Your task to perform on an android device: turn off wifi Image 0: 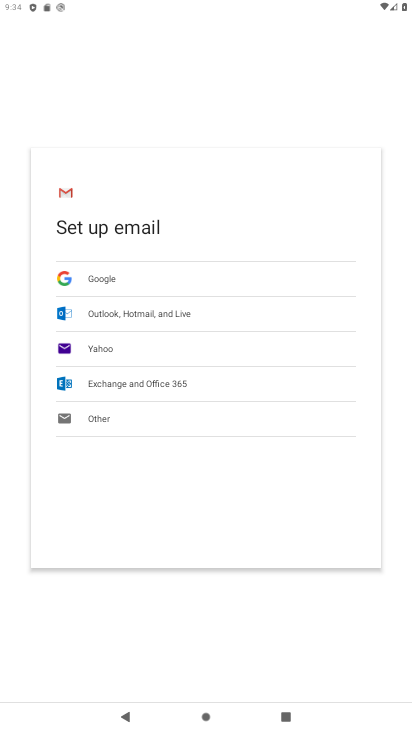
Step 0: press home button
Your task to perform on an android device: turn off wifi Image 1: 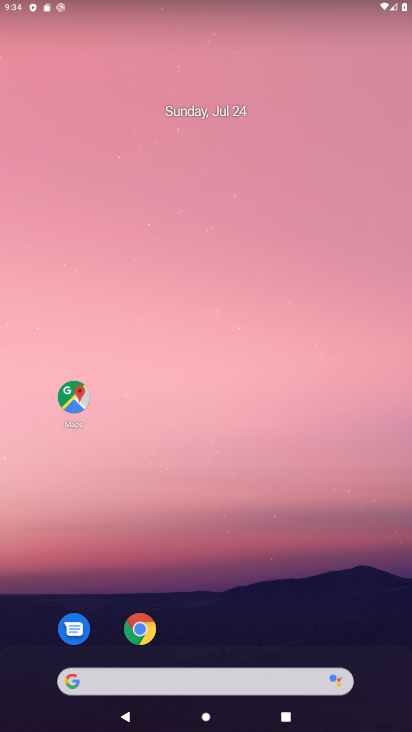
Step 1: drag from (265, 511) to (294, 25)
Your task to perform on an android device: turn off wifi Image 2: 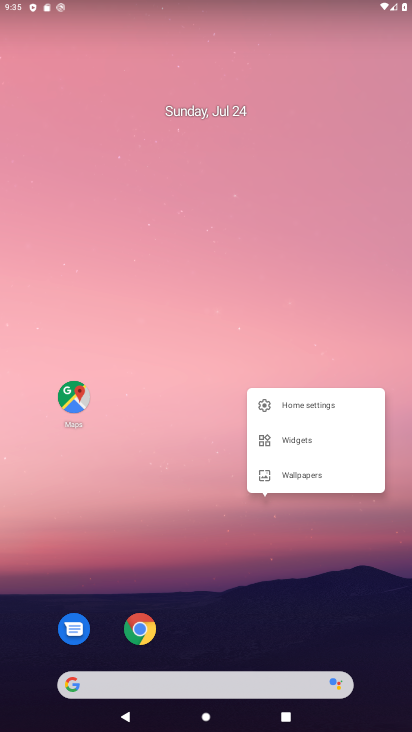
Step 2: drag from (252, 584) to (263, 35)
Your task to perform on an android device: turn off wifi Image 3: 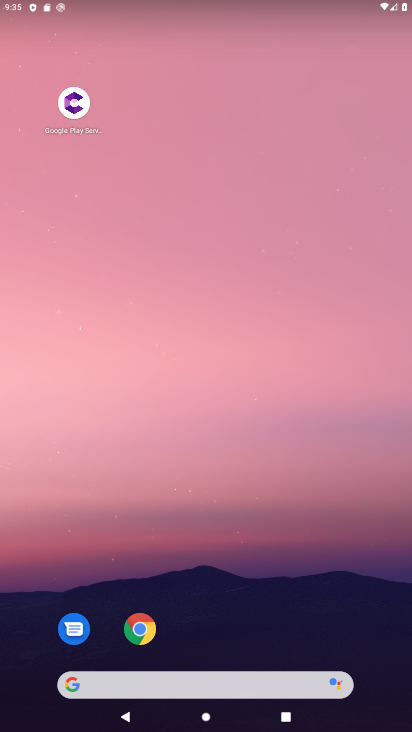
Step 3: click (167, 606)
Your task to perform on an android device: turn off wifi Image 4: 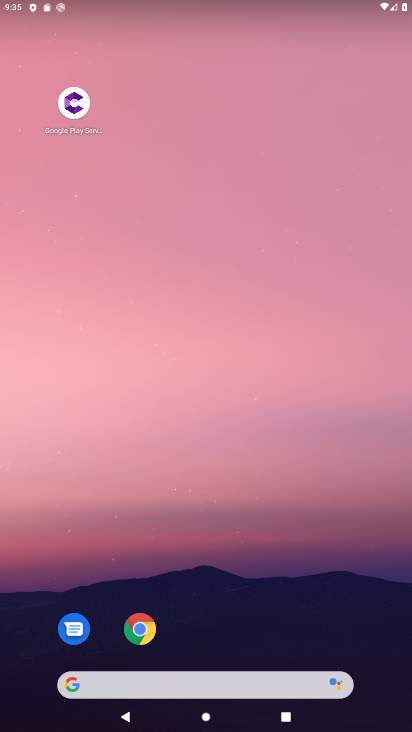
Step 4: press home button
Your task to perform on an android device: turn off wifi Image 5: 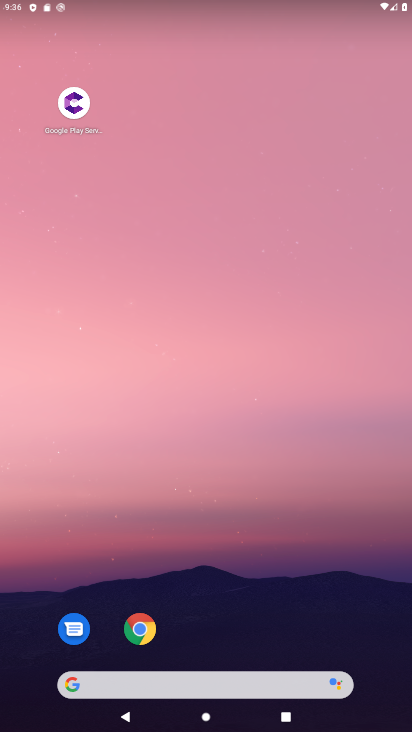
Step 5: drag from (315, 577) to (317, 142)
Your task to perform on an android device: turn off wifi Image 6: 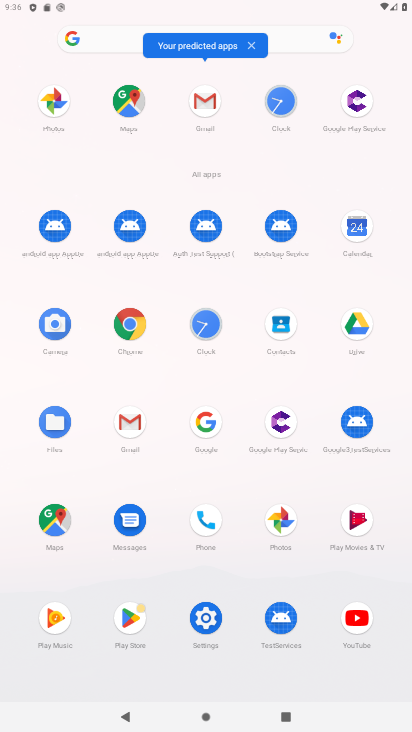
Step 6: press home button
Your task to perform on an android device: turn off wifi Image 7: 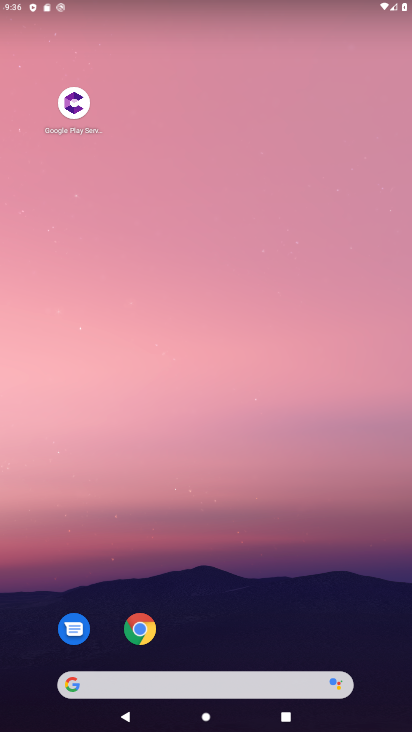
Step 7: drag from (270, 622) to (327, 66)
Your task to perform on an android device: turn off wifi Image 8: 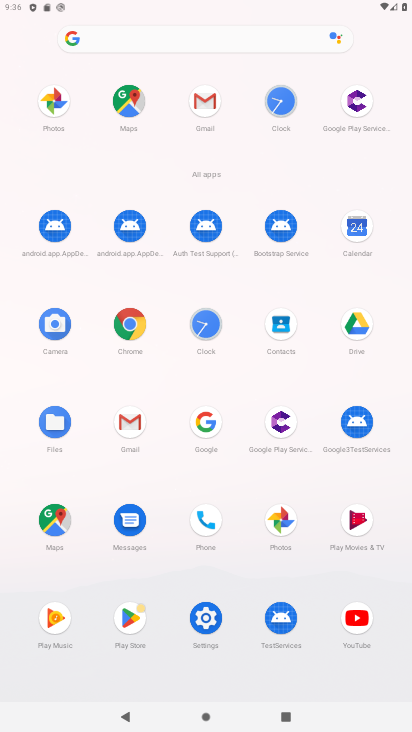
Step 8: click (196, 619)
Your task to perform on an android device: turn off wifi Image 9: 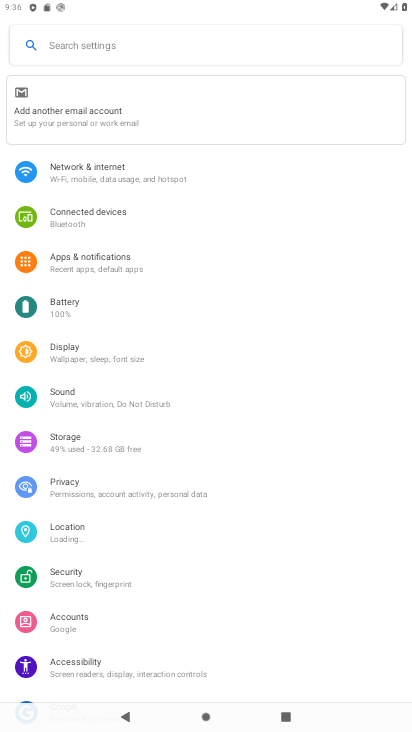
Step 9: click (99, 169)
Your task to perform on an android device: turn off wifi Image 10: 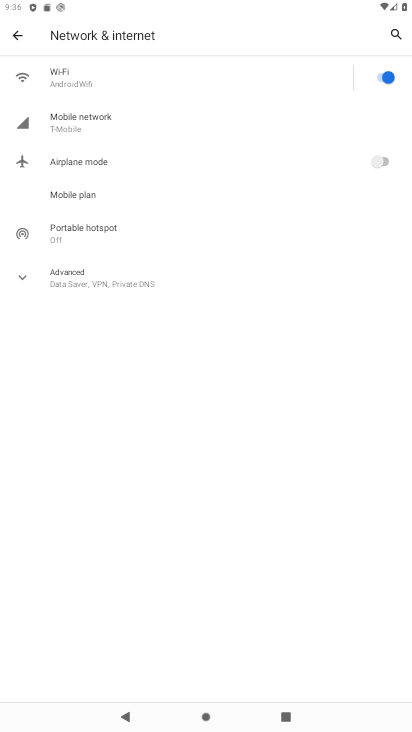
Step 10: click (382, 76)
Your task to perform on an android device: turn off wifi Image 11: 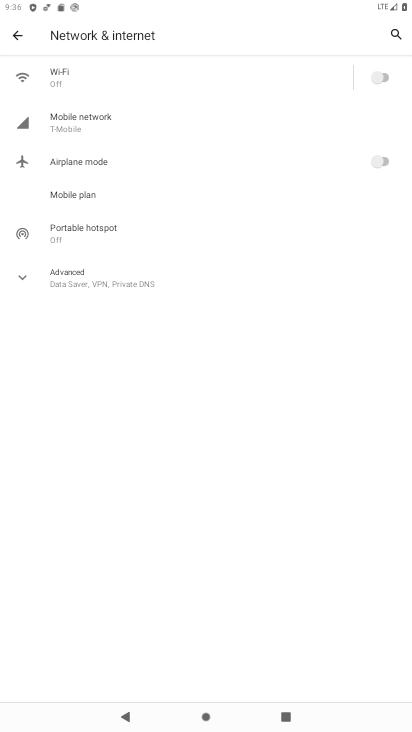
Step 11: task complete